Your task to perform on an android device: check google app version Image 0: 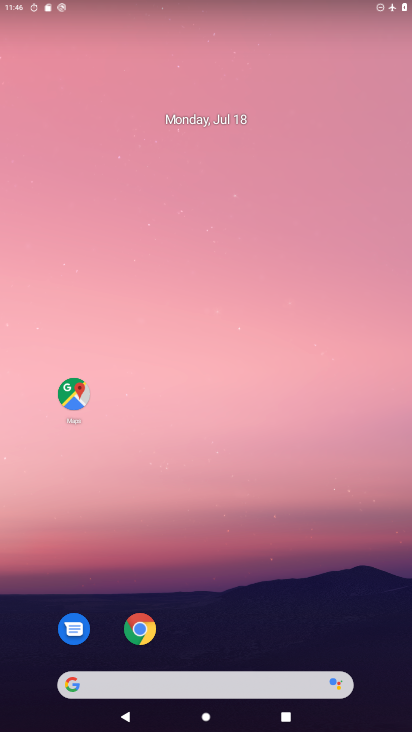
Step 0: drag from (236, 375) to (231, 89)
Your task to perform on an android device: check google app version Image 1: 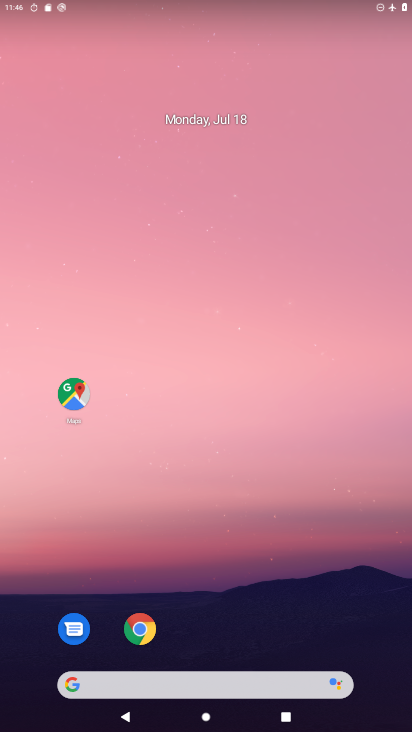
Step 1: drag from (255, 369) to (236, 0)
Your task to perform on an android device: check google app version Image 2: 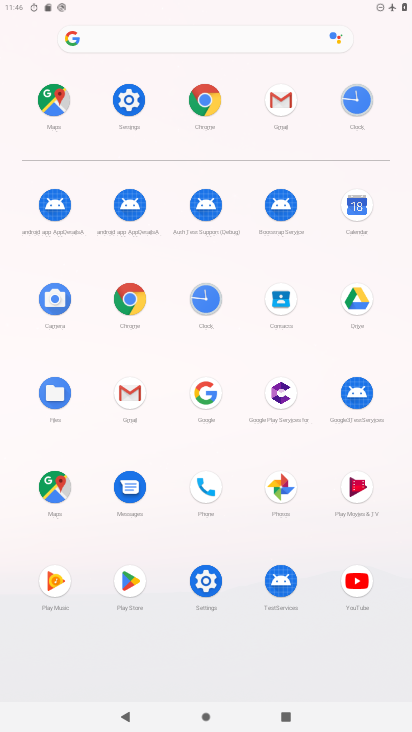
Step 2: click (208, 394)
Your task to perform on an android device: check google app version Image 3: 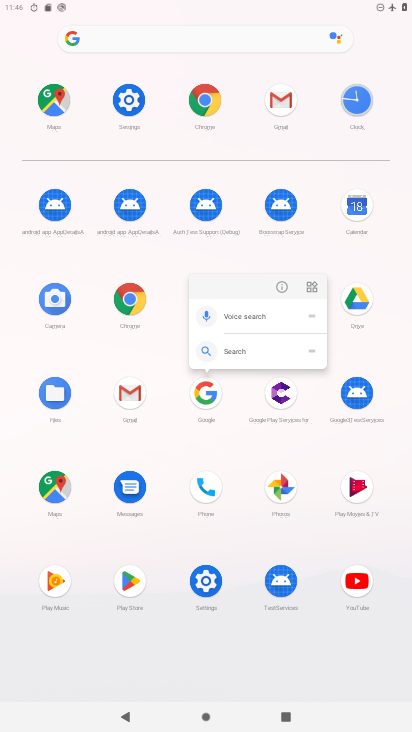
Step 3: click (284, 287)
Your task to perform on an android device: check google app version Image 4: 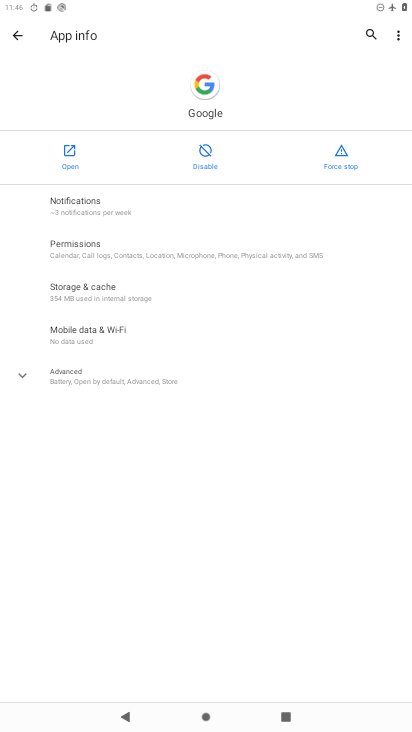
Step 4: click (100, 373)
Your task to perform on an android device: check google app version Image 5: 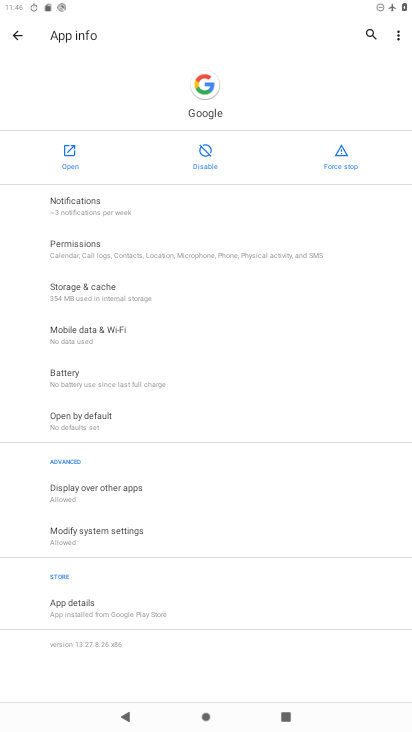
Step 5: task complete